Your task to perform on an android device: toggle translation in the chrome app Image 0: 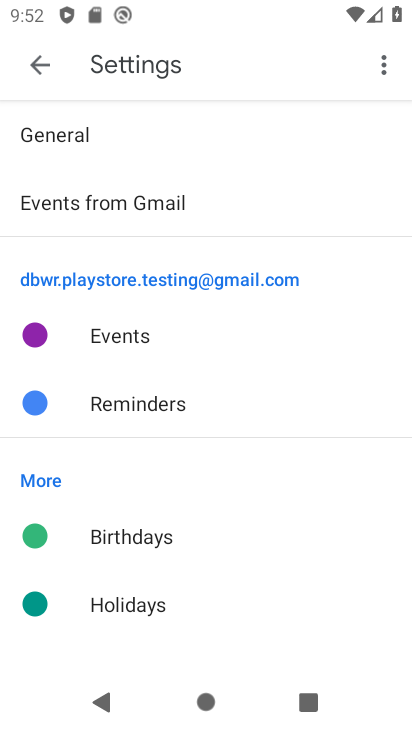
Step 0: press home button
Your task to perform on an android device: toggle translation in the chrome app Image 1: 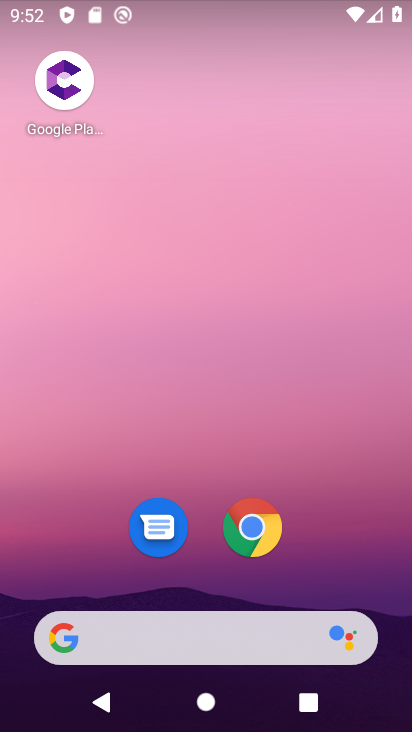
Step 1: drag from (275, 730) to (157, 221)
Your task to perform on an android device: toggle translation in the chrome app Image 2: 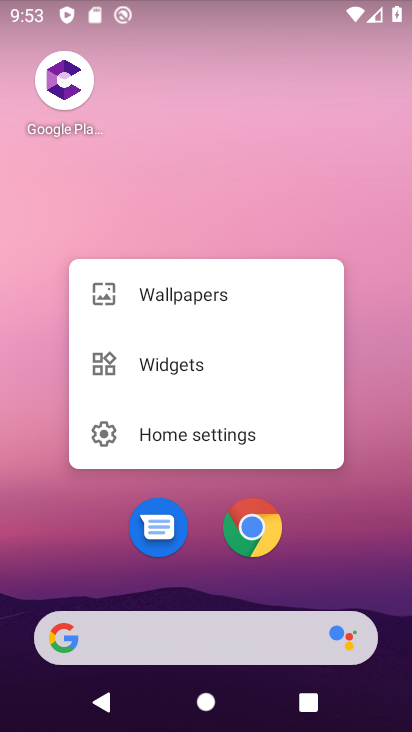
Step 2: drag from (240, 602) to (164, 124)
Your task to perform on an android device: toggle translation in the chrome app Image 3: 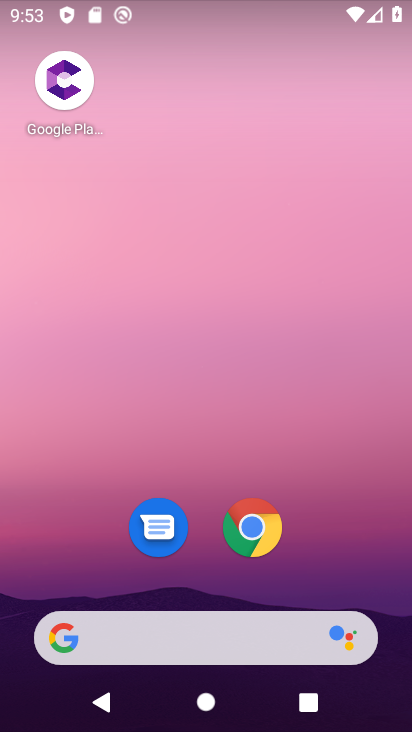
Step 3: drag from (248, 460) to (205, 218)
Your task to perform on an android device: toggle translation in the chrome app Image 4: 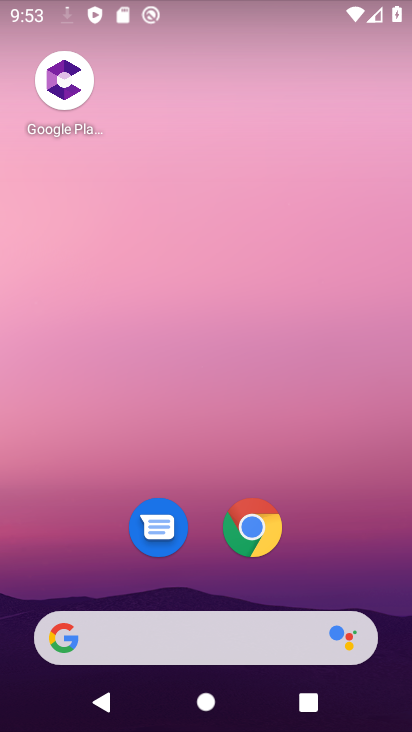
Step 4: drag from (252, 627) to (252, 370)
Your task to perform on an android device: toggle translation in the chrome app Image 5: 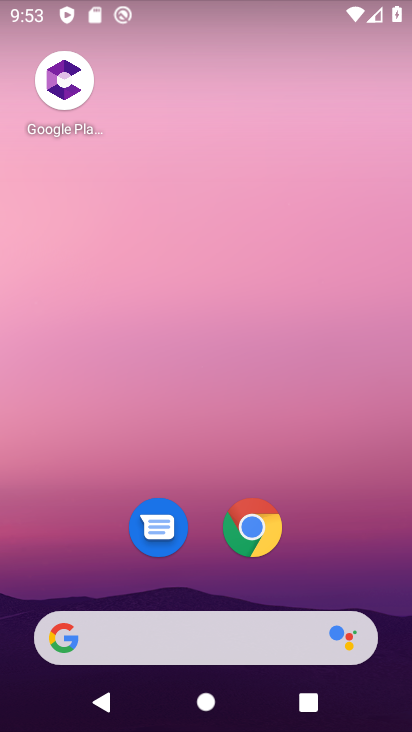
Step 5: drag from (275, 707) to (158, 280)
Your task to perform on an android device: toggle translation in the chrome app Image 6: 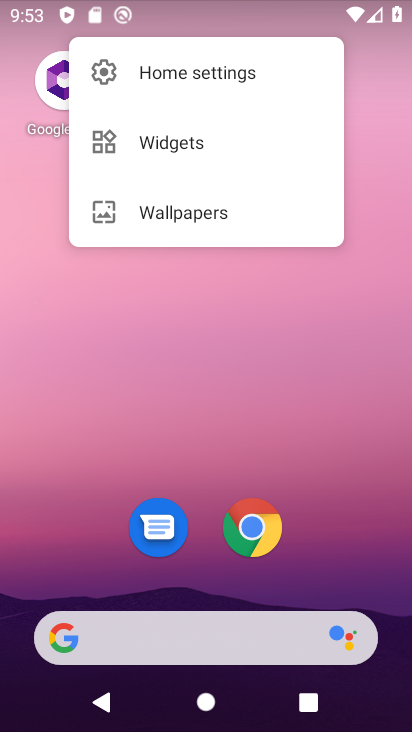
Step 6: drag from (268, 697) to (254, 237)
Your task to perform on an android device: toggle translation in the chrome app Image 7: 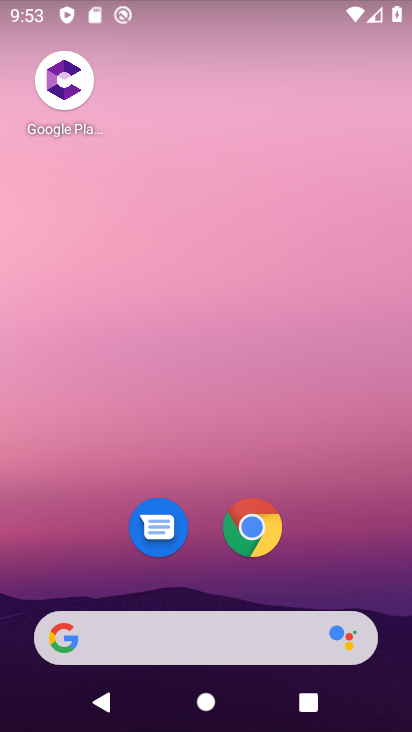
Step 7: drag from (281, 720) to (230, 152)
Your task to perform on an android device: toggle translation in the chrome app Image 8: 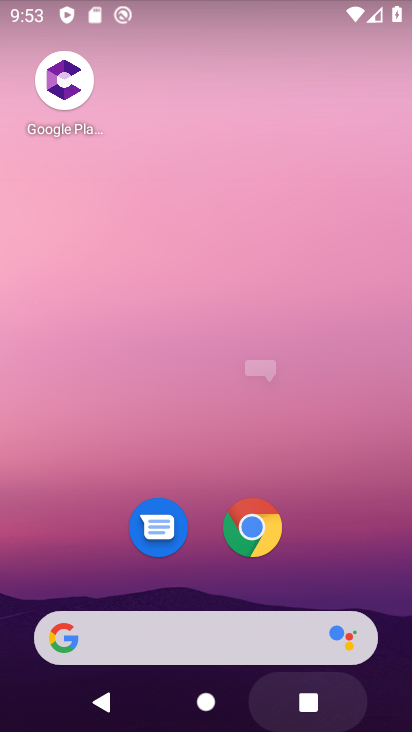
Step 8: drag from (253, 392) to (266, 97)
Your task to perform on an android device: toggle translation in the chrome app Image 9: 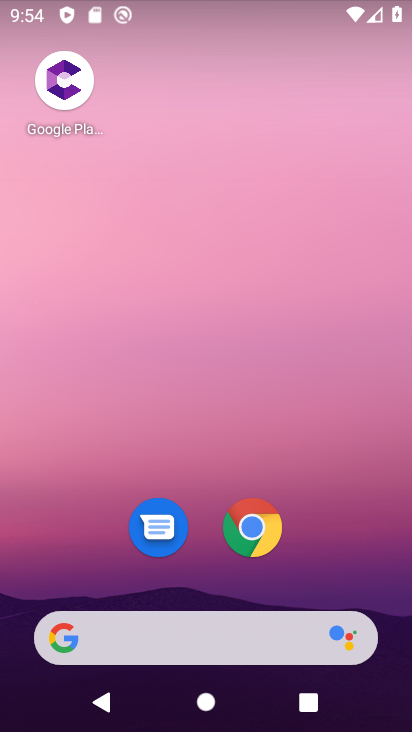
Step 9: drag from (228, 278) to (208, 151)
Your task to perform on an android device: toggle translation in the chrome app Image 10: 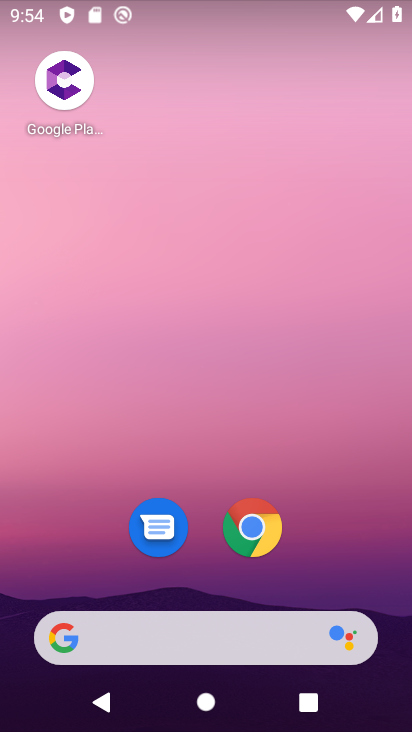
Step 10: drag from (248, 665) to (241, 330)
Your task to perform on an android device: toggle translation in the chrome app Image 11: 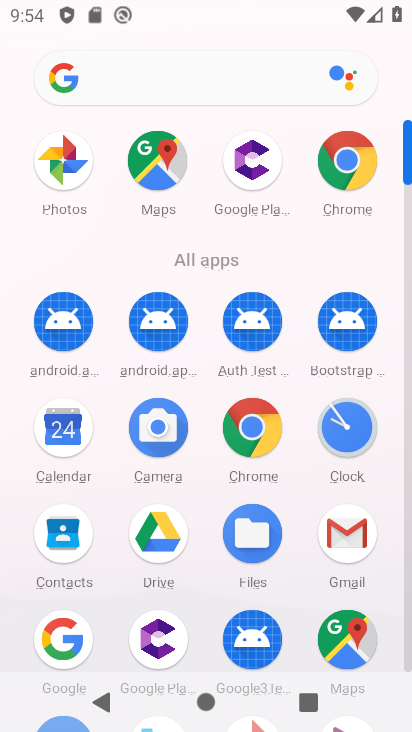
Step 11: click (348, 175)
Your task to perform on an android device: toggle translation in the chrome app Image 12: 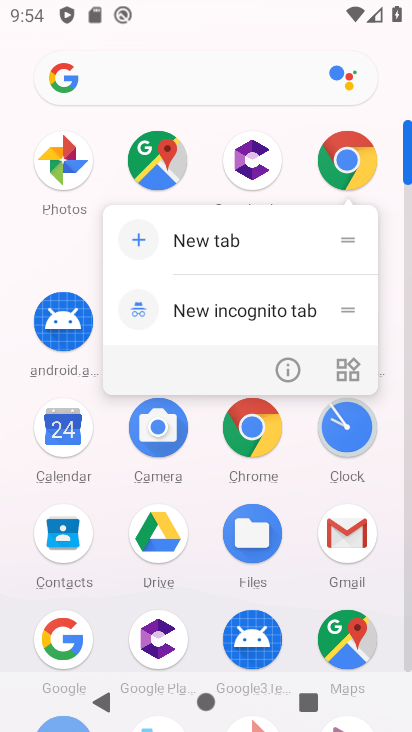
Step 12: drag from (351, 166) to (342, 208)
Your task to perform on an android device: toggle translation in the chrome app Image 13: 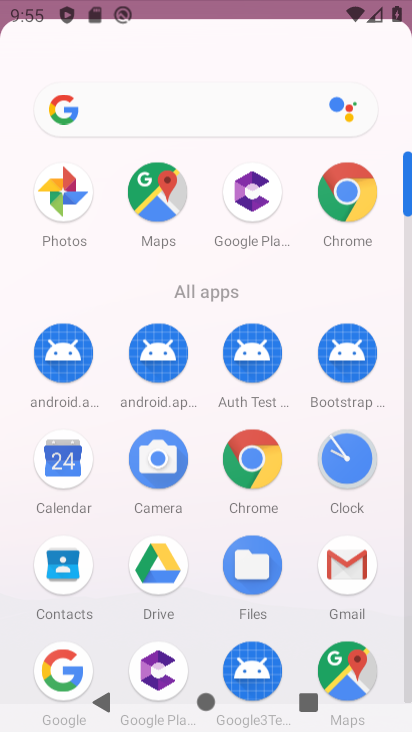
Step 13: click (342, 161)
Your task to perform on an android device: toggle translation in the chrome app Image 14: 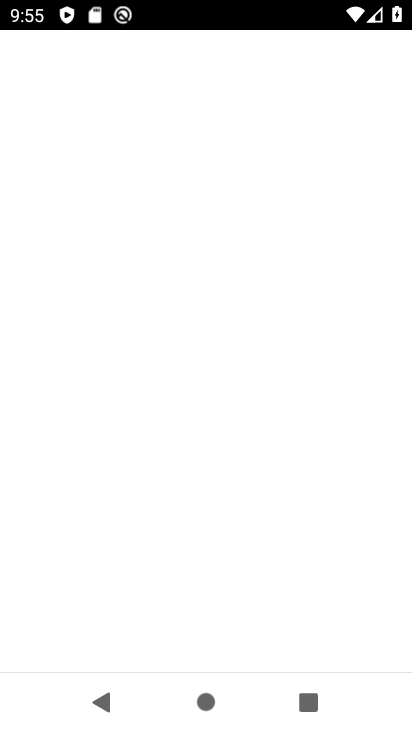
Step 14: click (345, 169)
Your task to perform on an android device: toggle translation in the chrome app Image 15: 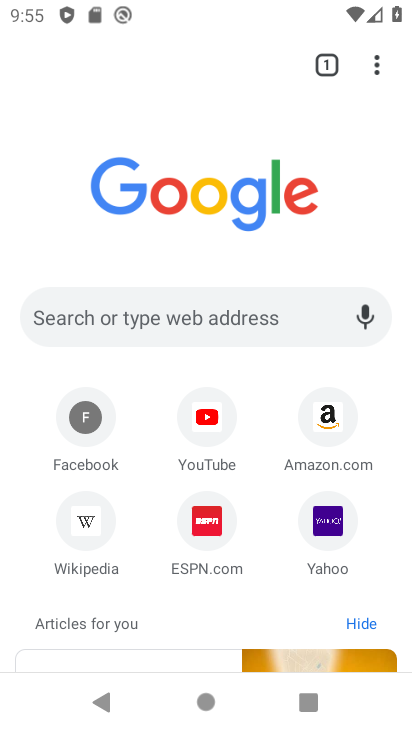
Step 15: drag from (376, 58) to (146, 566)
Your task to perform on an android device: toggle translation in the chrome app Image 16: 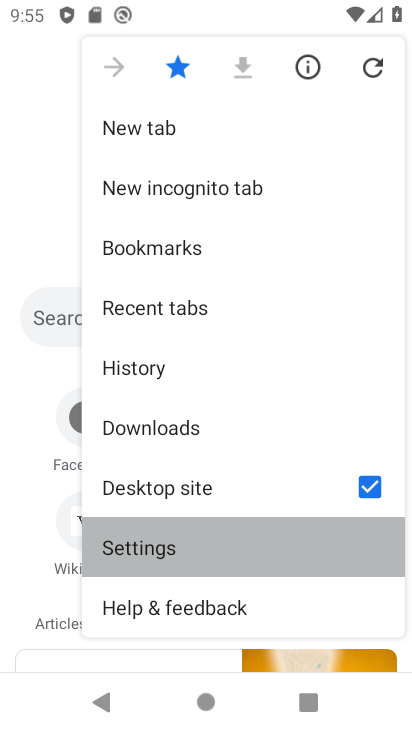
Step 16: click (115, 555)
Your task to perform on an android device: toggle translation in the chrome app Image 17: 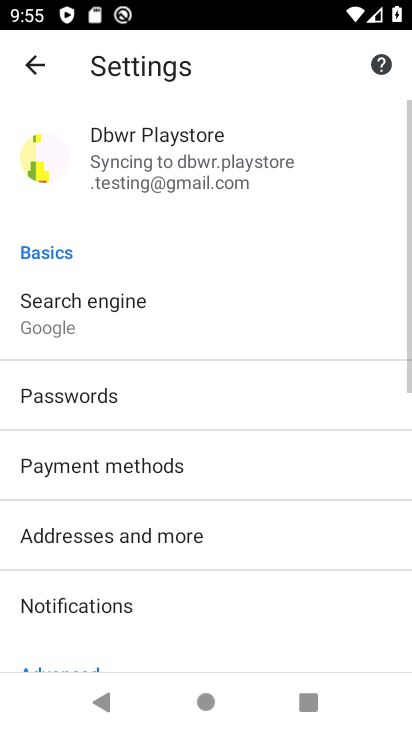
Step 17: drag from (157, 580) to (168, 74)
Your task to perform on an android device: toggle translation in the chrome app Image 18: 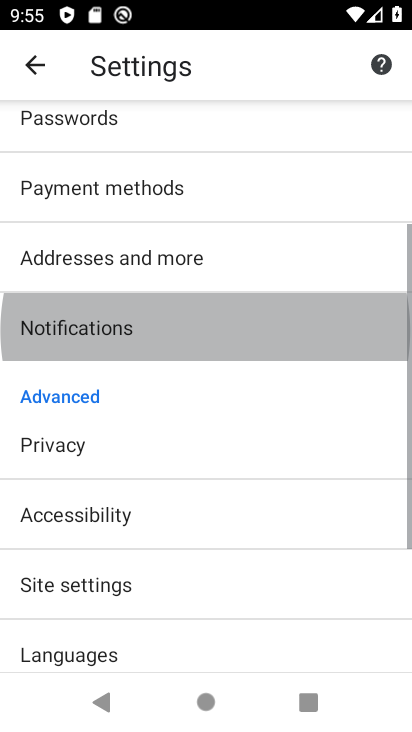
Step 18: drag from (234, 484) to (253, 134)
Your task to perform on an android device: toggle translation in the chrome app Image 19: 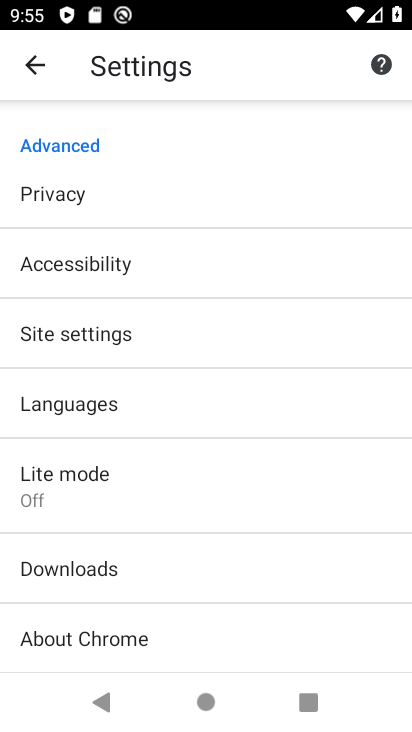
Step 19: click (64, 403)
Your task to perform on an android device: toggle translation in the chrome app Image 20: 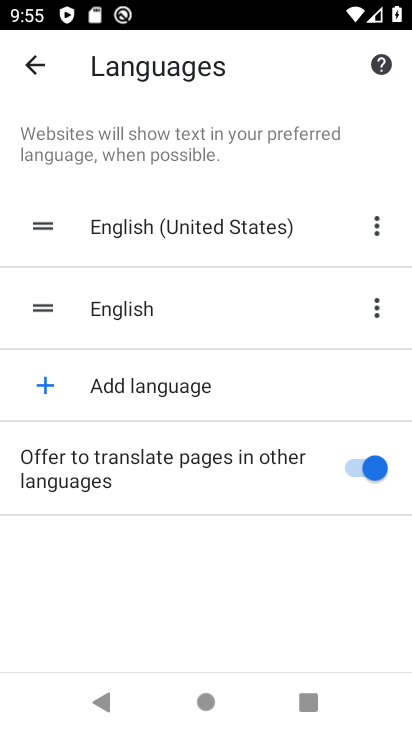
Step 20: click (375, 458)
Your task to perform on an android device: toggle translation in the chrome app Image 21: 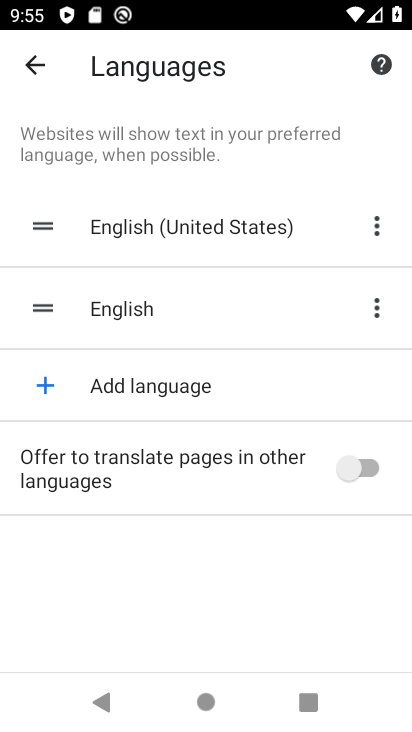
Step 21: click (360, 471)
Your task to perform on an android device: toggle translation in the chrome app Image 22: 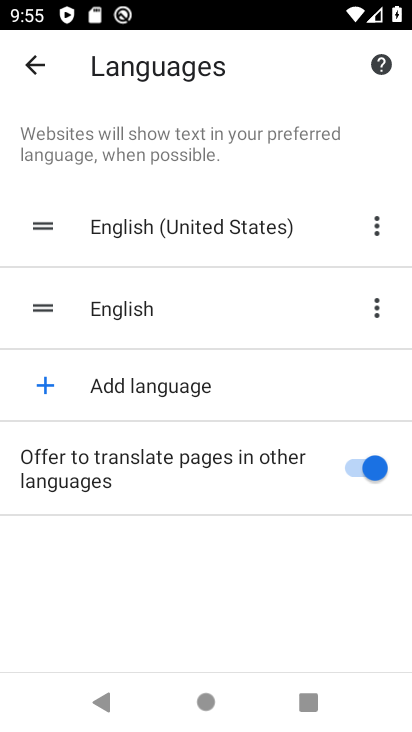
Step 22: click (371, 472)
Your task to perform on an android device: toggle translation in the chrome app Image 23: 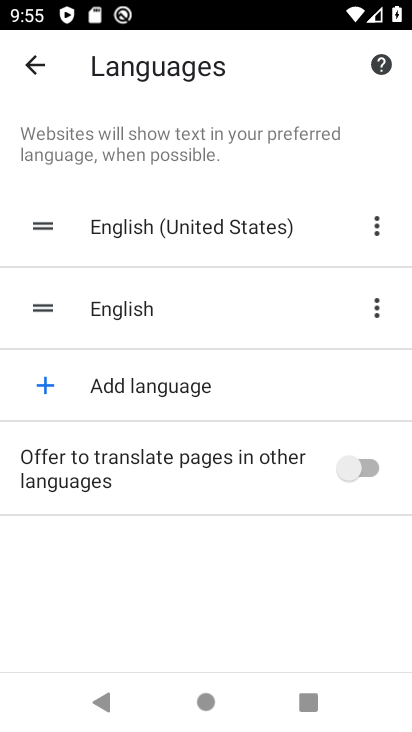
Step 23: task complete